Your task to perform on an android device: Open the web browser Image 0: 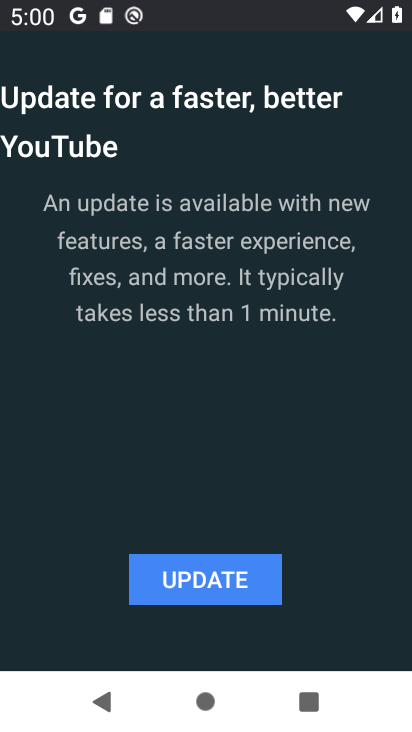
Step 0: press home button
Your task to perform on an android device: Open the web browser Image 1: 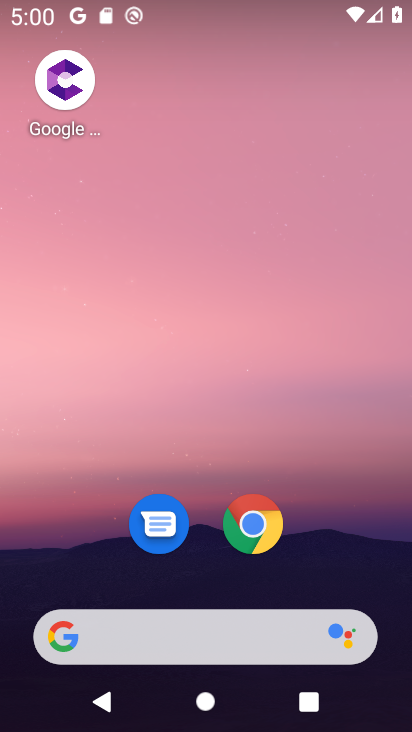
Step 1: drag from (238, 530) to (325, 530)
Your task to perform on an android device: Open the web browser Image 2: 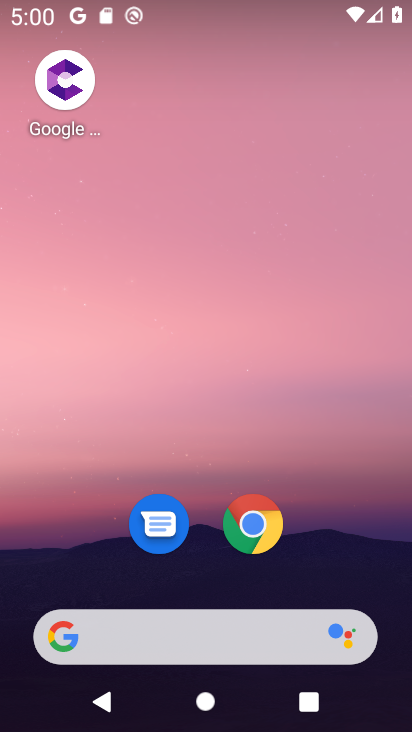
Step 2: click (255, 526)
Your task to perform on an android device: Open the web browser Image 3: 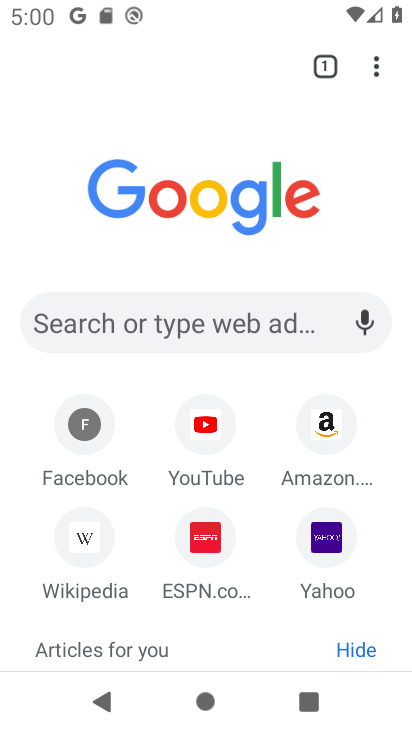
Step 3: task complete